Your task to perform on an android device: Find coffee shops on Maps Image 0: 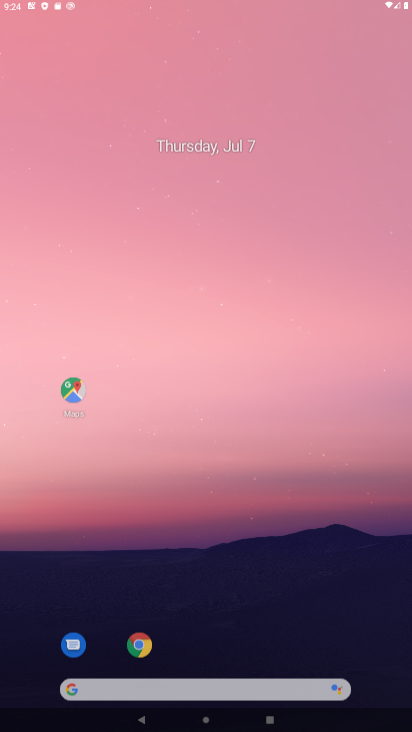
Step 0: drag from (216, 726) to (202, 297)
Your task to perform on an android device: Find coffee shops on Maps Image 1: 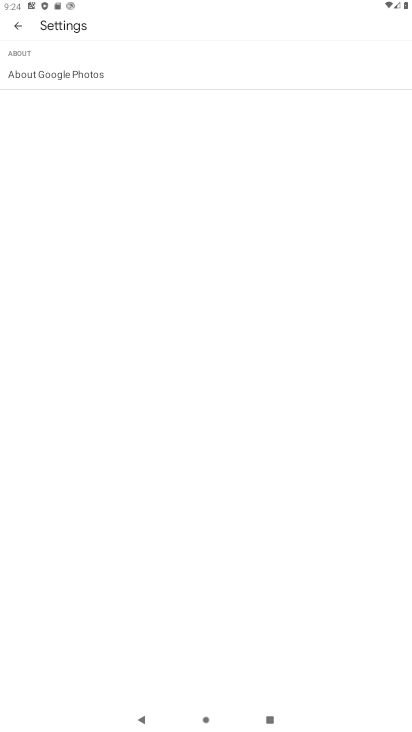
Step 1: press home button
Your task to perform on an android device: Find coffee shops on Maps Image 2: 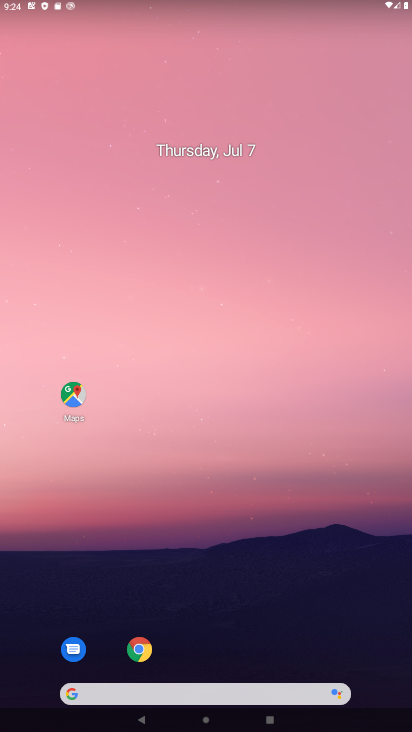
Step 2: drag from (229, 718) to (223, 197)
Your task to perform on an android device: Find coffee shops on Maps Image 3: 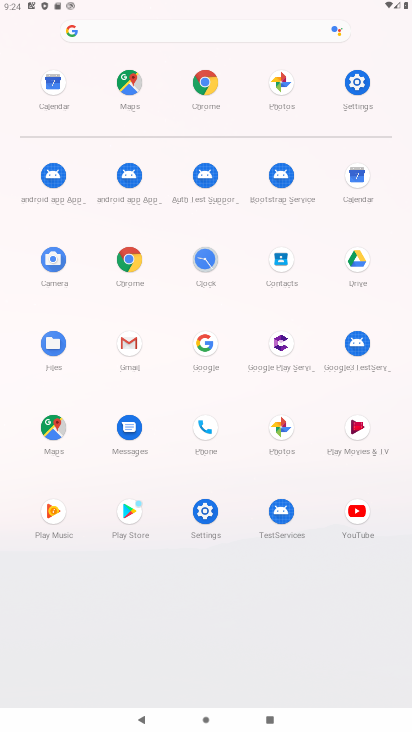
Step 3: click (51, 420)
Your task to perform on an android device: Find coffee shops on Maps Image 4: 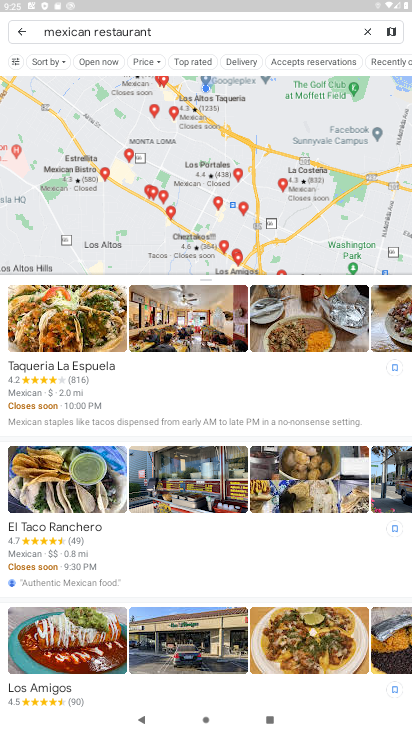
Step 4: click (369, 29)
Your task to perform on an android device: Find coffee shops on Maps Image 5: 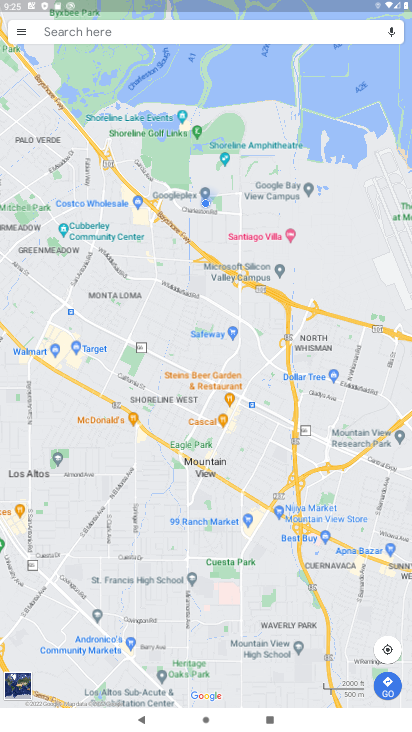
Step 5: click (249, 28)
Your task to perform on an android device: Find coffee shops on Maps Image 6: 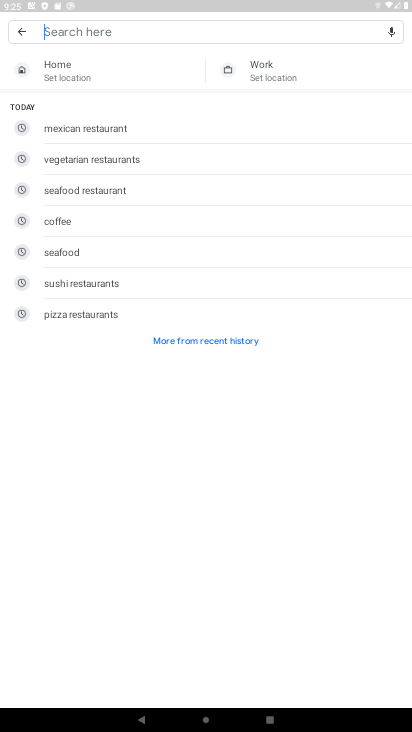
Step 6: type "coffee shops"
Your task to perform on an android device: Find coffee shops on Maps Image 7: 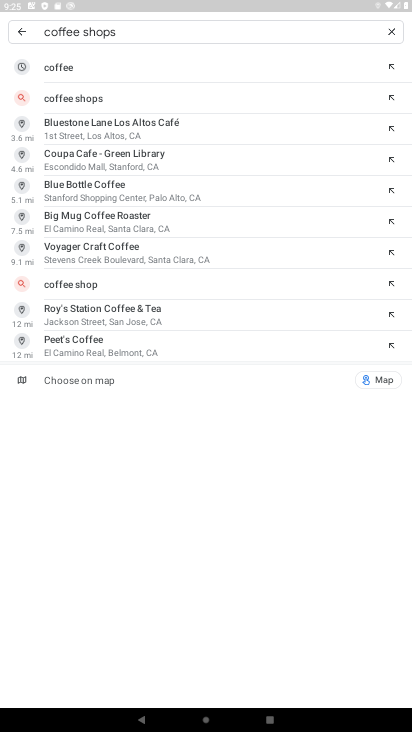
Step 7: click (90, 96)
Your task to perform on an android device: Find coffee shops on Maps Image 8: 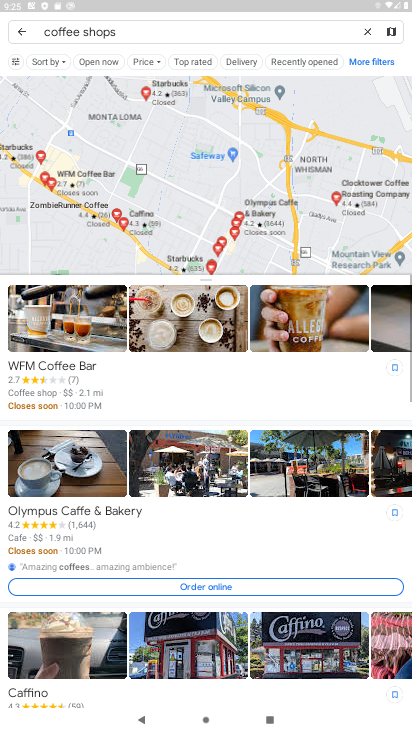
Step 8: task complete